Your task to perform on an android device: turn on improve location accuracy Image 0: 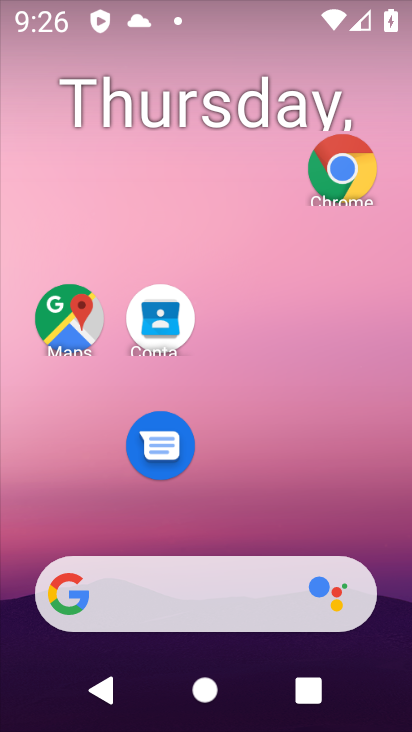
Step 0: drag from (270, 622) to (227, 157)
Your task to perform on an android device: turn on improve location accuracy Image 1: 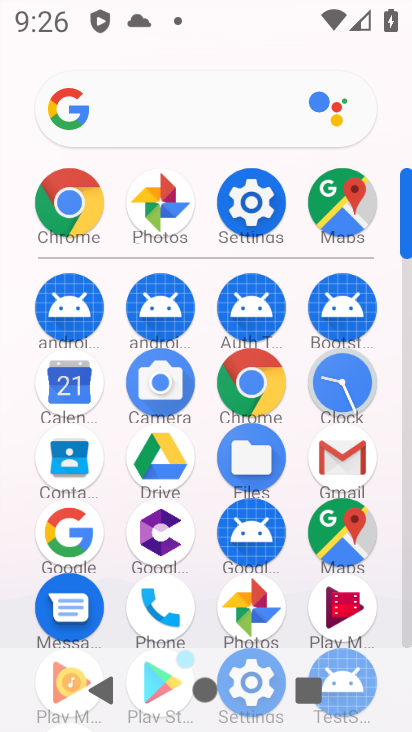
Step 1: click (240, 202)
Your task to perform on an android device: turn on improve location accuracy Image 2: 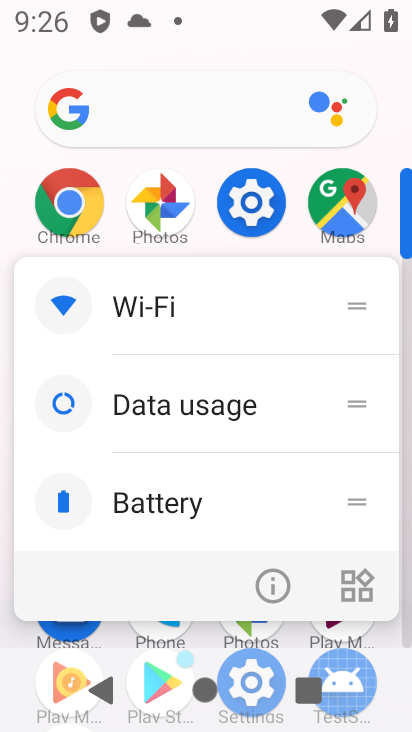
Step 2: click (240, 202)
Your task to perform on an android device: turn on improve location accuracy Image 3: 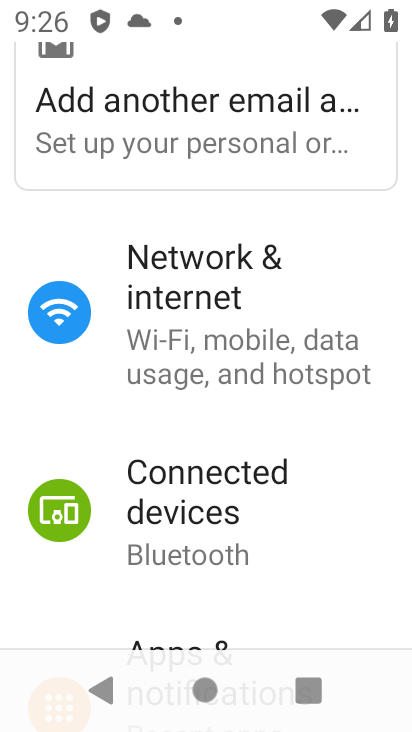
Step 3: drag from (192, 138) to (117, 399)
Your task to perform on an android device: turn on improve location accuracy Image 4: 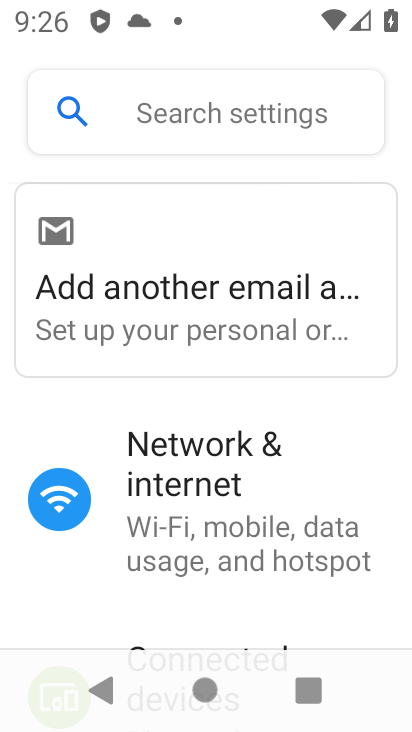
Step 4: click (166, 120)
Your task to perform on an android device: turn on improve location accuracy Image 5: 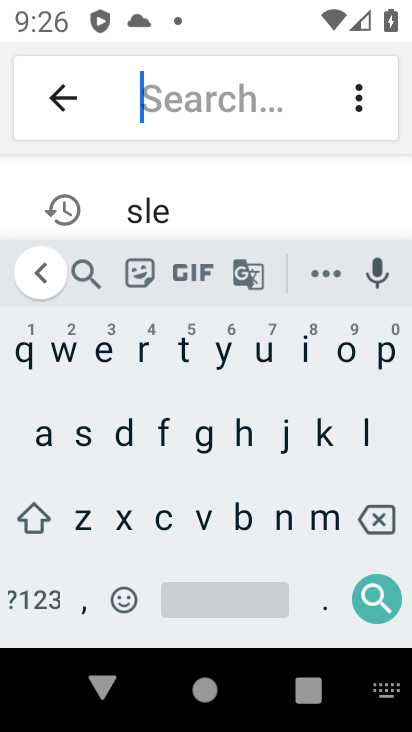
Step 5: click (362, 428)
Your task to perform on an android device: turn on improve location accuracy Image 6: 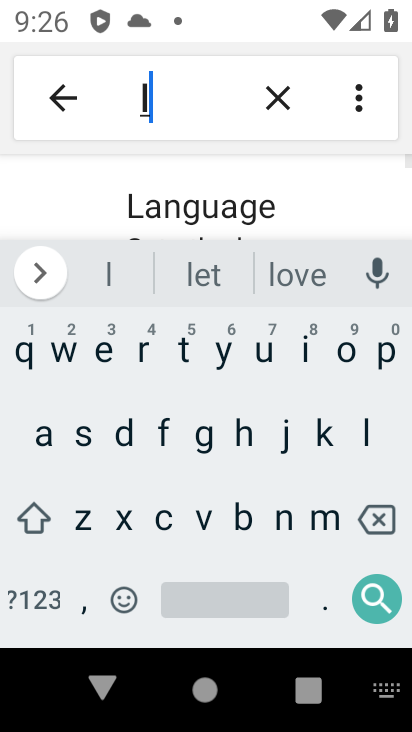
Step 6: click (341, 360)
Your task to perform on an android device: turn on improve location accuracy Image 7: 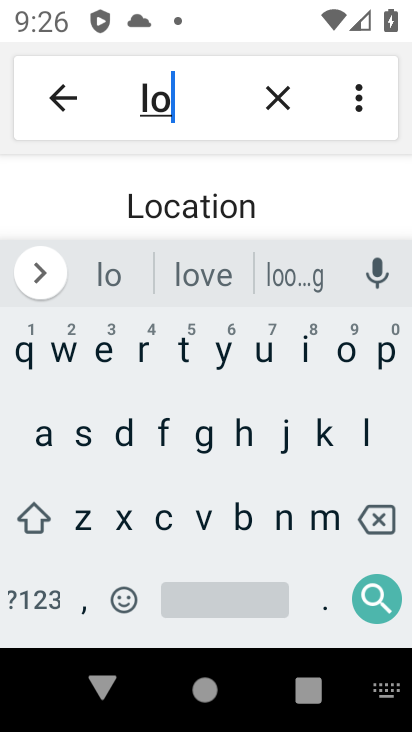
Step 7: click (162, 517)
Your task to perform on an android device: turn on improve location accuracy Image 8: 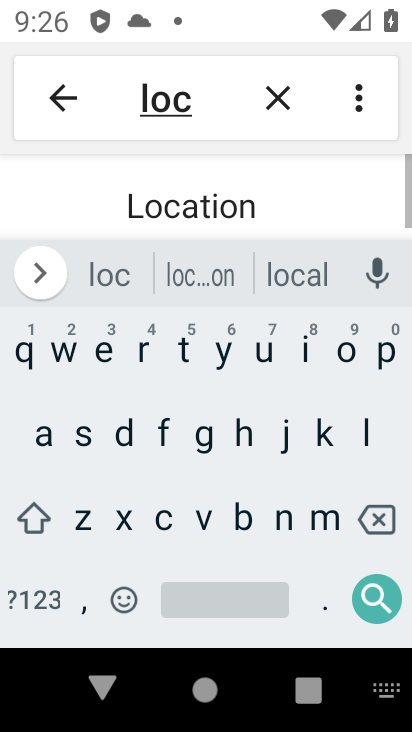
Step 8: click (43, 442)
Your task to perform on an android device: turn on improve location accuracy Image 9: 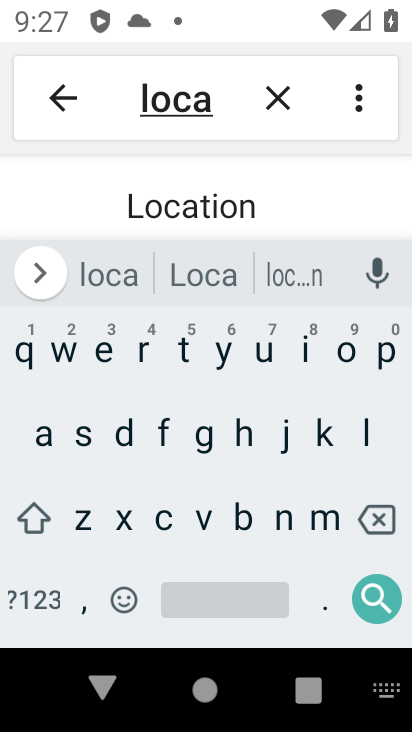
Step 9: press back button
Your task to perform on an android device: turn on improve location accuracy Image 10: 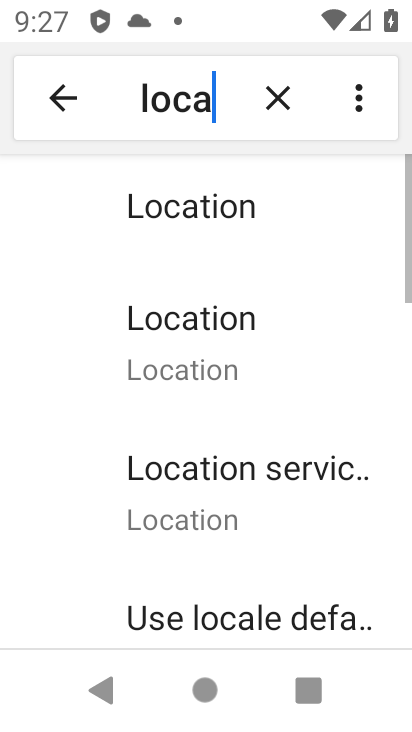
Step 10: click (145, 353)
Your task to perform on an android device: turn on improve location accuracy Image 11: 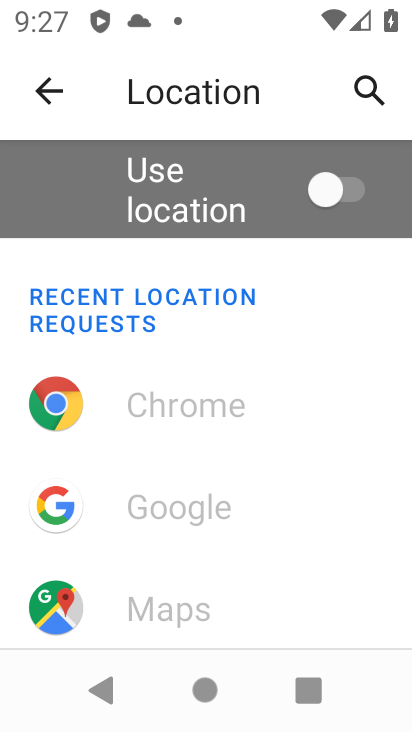
Step 11: drag from (214, 515) to (267, 166)
Your task to perform on an android device: turn on improve location accuracy Image 12: 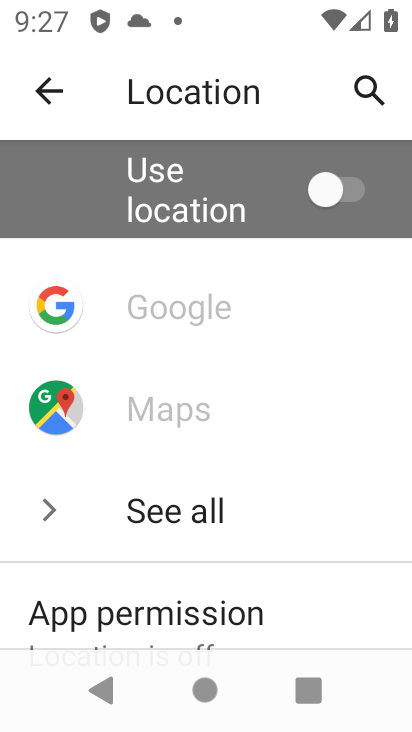
Step 12: drag from (115, 517) to (183, 287)
Your task to perform on an android device: turn on improve location accuracy Image 13: 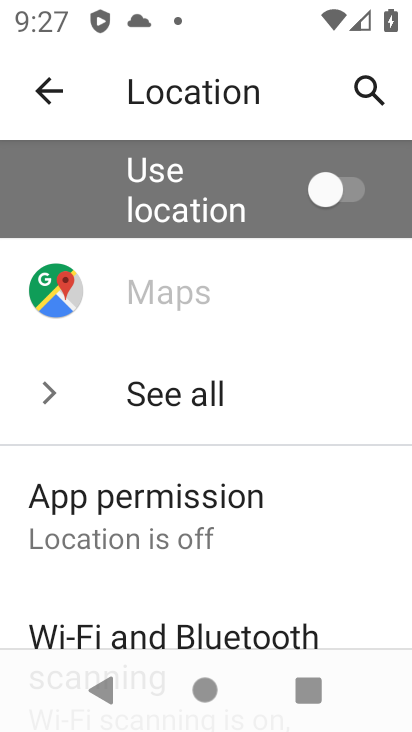
Step 13: drag from (131, 508) to (202, 302)
Your task to perform on an android device: turn on improve location accuracy Image 14: 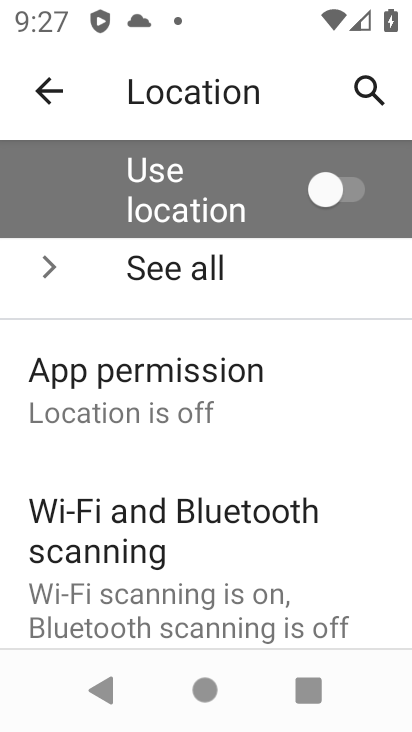
Step 14: drag from (191, 487) to (227, 294)
Your task to perform on an android device: turn on improve location accuracy Image 15: 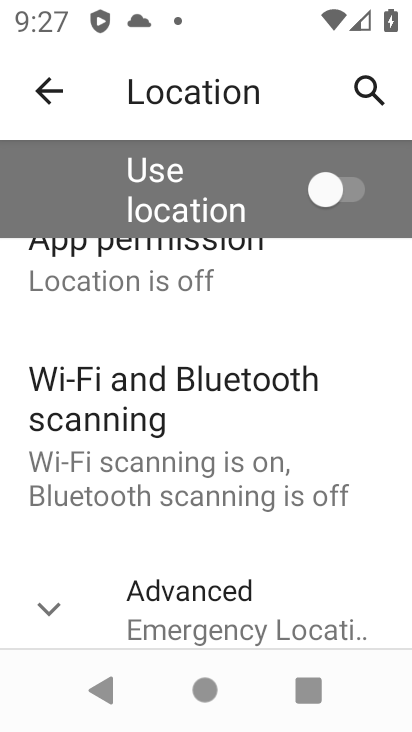
Step 15: drag from (141, 500) to (202, 352)
Your task to perform on an android device: turn on improve location accuracy Image 16: 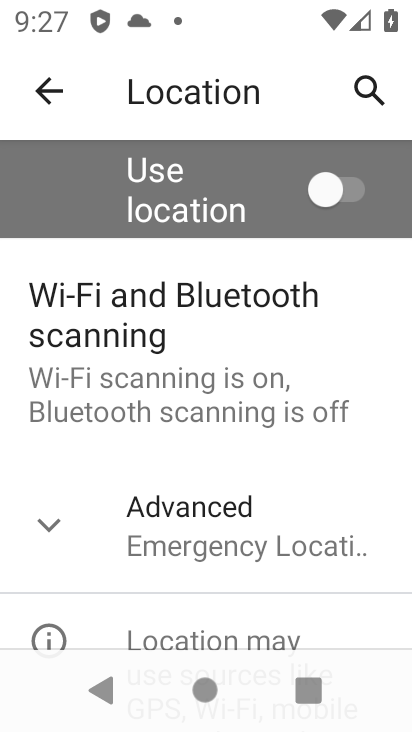
Step 16: click (146, 492)
Your task to perform on an android device: turn on improve location accuracy Image 17: 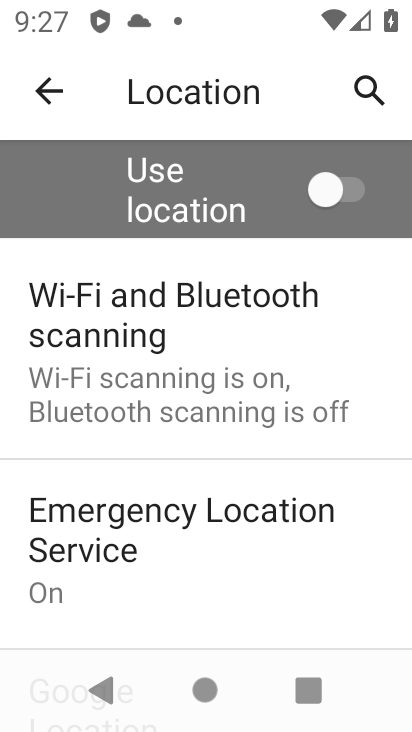
Step 17: drag from (149, 520) to (198, 342)
Your task to perform on an android device: turn on improve location accuracy Image 18: 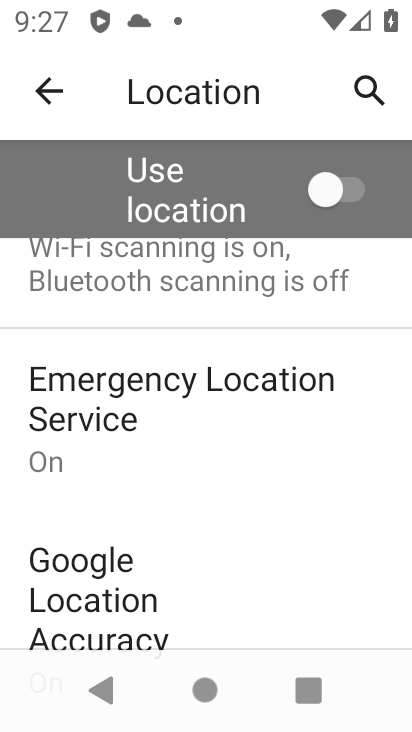
Step 18: drag from (148, 502) to (158, 351)
Your task to perform on an android device: turn on improve location accuracy Image 19: 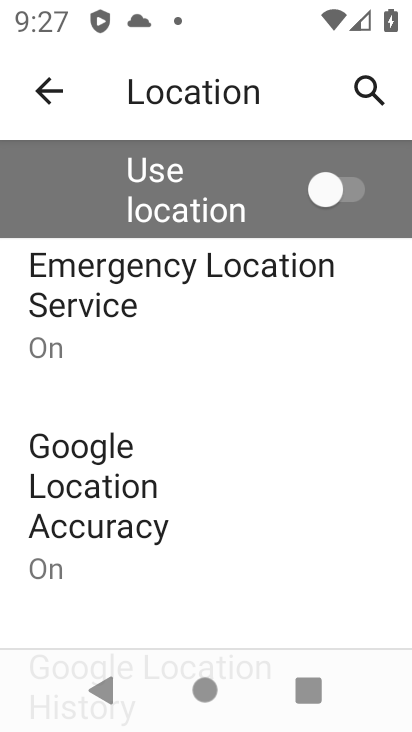
Step 19: click (95, 475)
Your task to perform on an android device: turn on improve location accuracy Image 20: 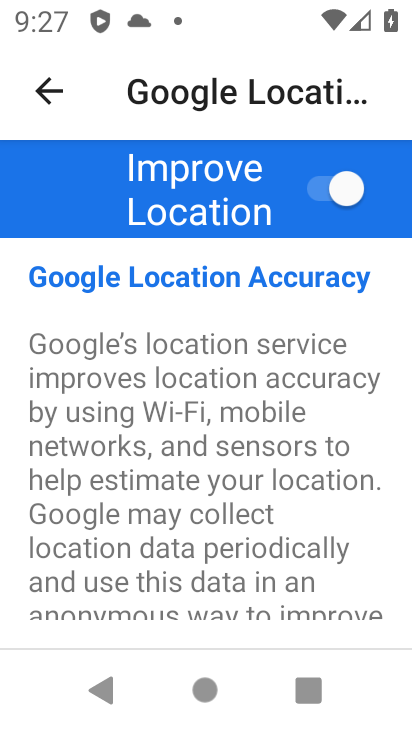
Step 20: click (343, 201)
Your task to perform on an android device: turn on improve location accuracy Image 21: 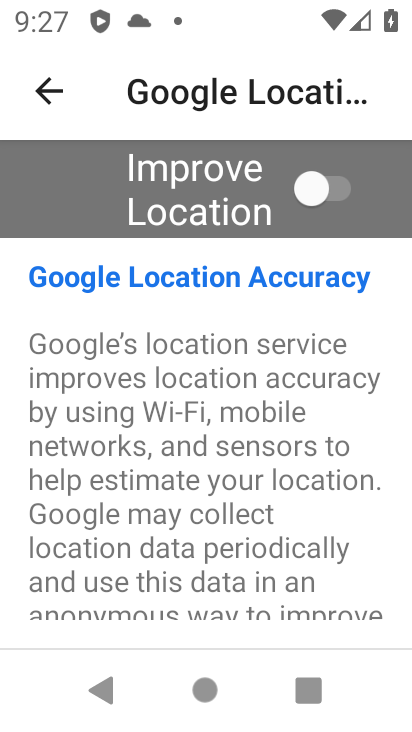
Step 21: click (343, 201)
Your task to perform on an android device: turn on improve location accuracy Image 22: 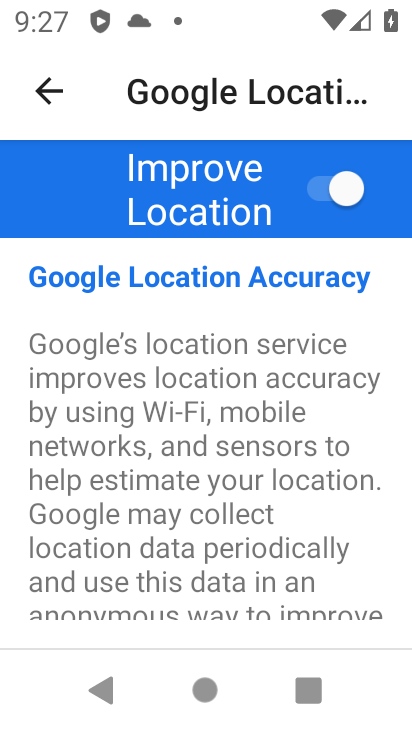
Step 22: task complete